Your task to perform on an android device: Go to eBay Image 0: 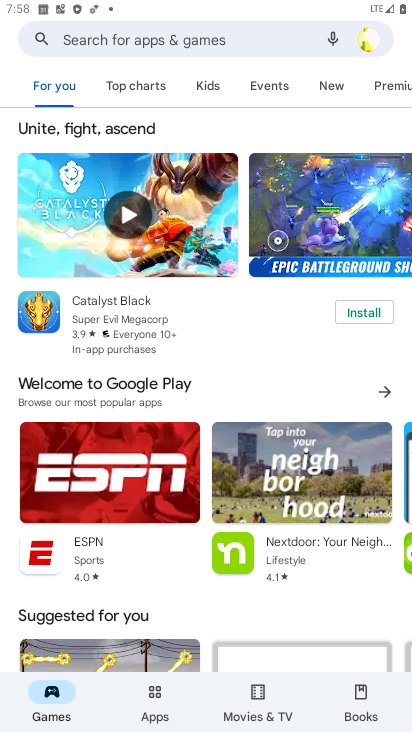
Step 0: press back button
Your task to perform on an android device: Go to eBay Image 1: 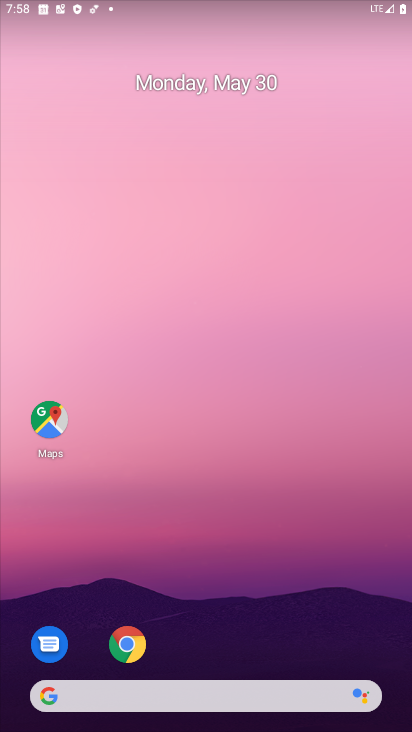
Step 1: click (127, 647)
Your task to perform on an android device: Go to eBay Image 2: 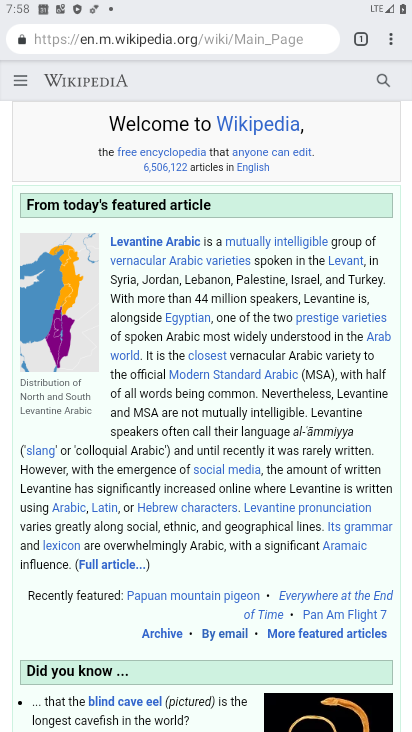
Step 2: click (227, 29)
Your task to perform on an android device: Go to eBay Image 3: 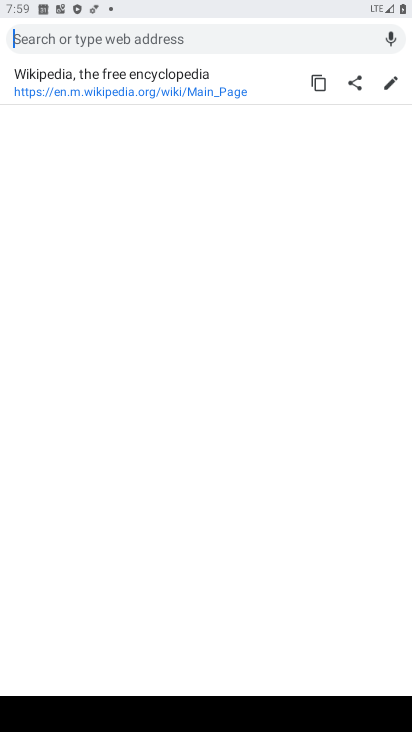
Step 3: type "eBay"
Your task to perform on an android device: Go to eBay Image 4: 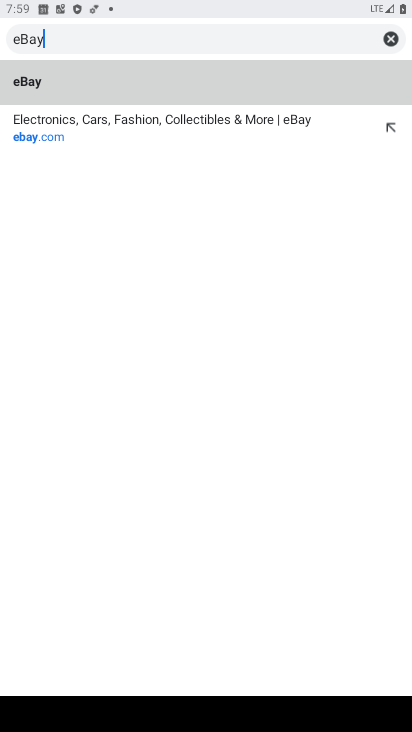
Step 4: type ""
Your task to perform on an android device: Go to eBay Image 5: 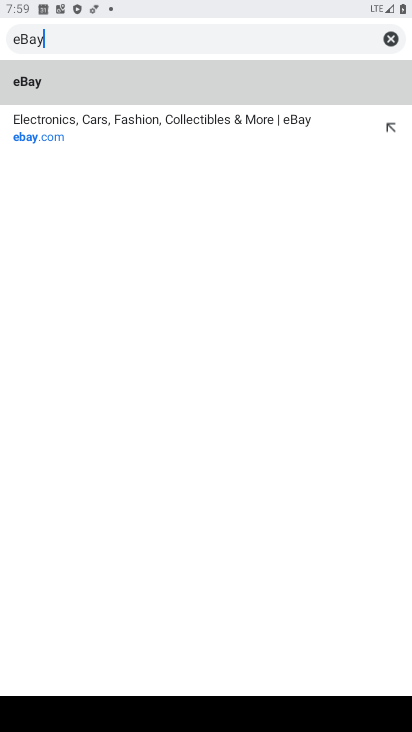
Step 5: click (97, 80)
Your task to perform on an android device: Go to eBay Image 6: 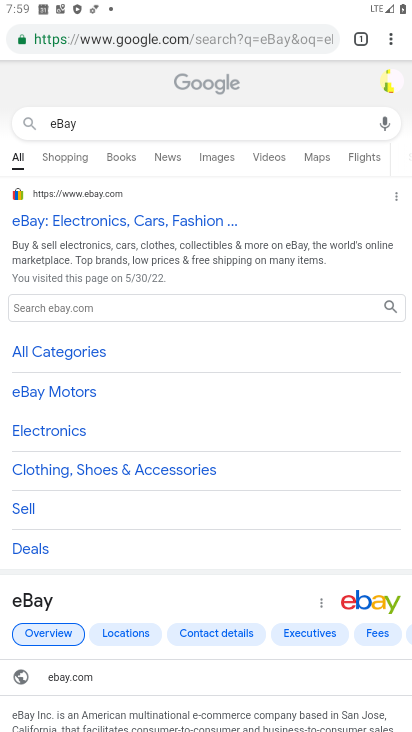
Step 6: click (136, 223)
Your task to perform on an android device: Go to eBay Image 7: 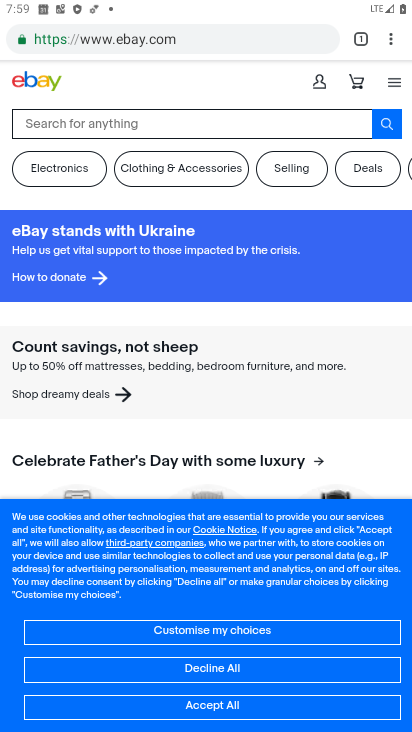
Step 7: task complete